Your task to perform on an android device: Search for pizza restaurants on Maps Image 0: 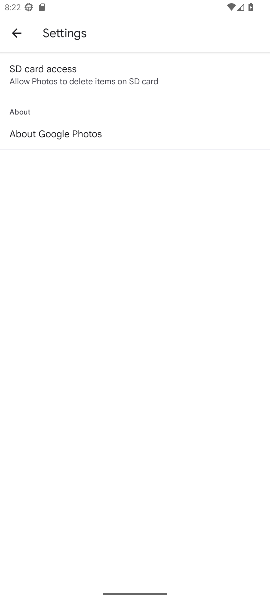
Step 0: press home button
Your task to perform on an android device: Search for pizza restaurants on Maps Image 1: 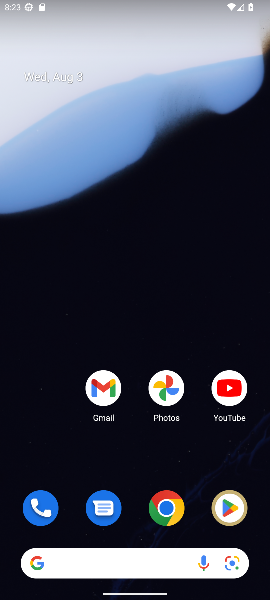
Step 1: drag from (141, 532) to (213, 443)
Your task to perform on an android device: Search for pizza restaurants on Maps Image 2: 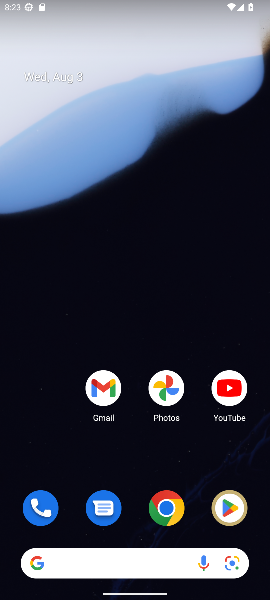
Step 2: drag from (146, 534) to (268, 236)
Your task to perform on an android device: Search for pizza restaurants on Maps Image 3: 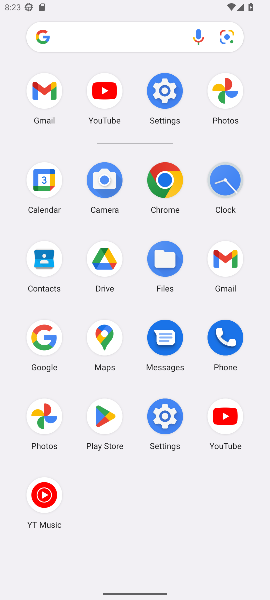
Step 3: drag from (95, 427) to (98, 292)
Your task to perform on an android device: Search for pizza restaurants on Maps Image 4: 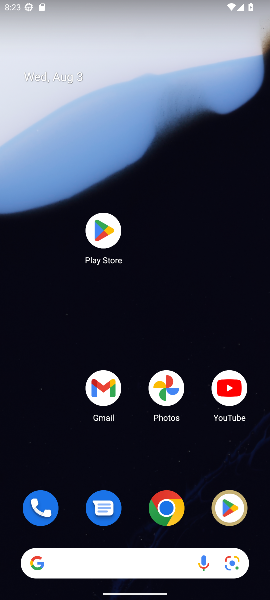
Step 4: drag from (138, 538) to (256, 23)
Your task to perform on an android device: Search for pizza restaurants on Maps Image 5: 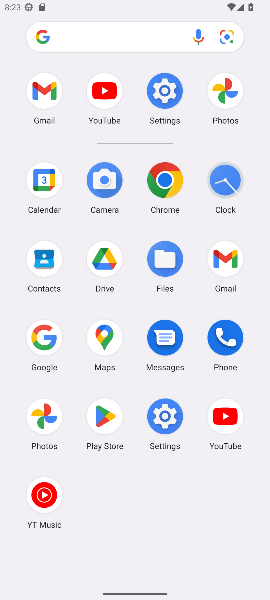
Step 5: click (103, 326)
Your task to perform on an android device: Search for pizza restaurants on Maps Image 6: 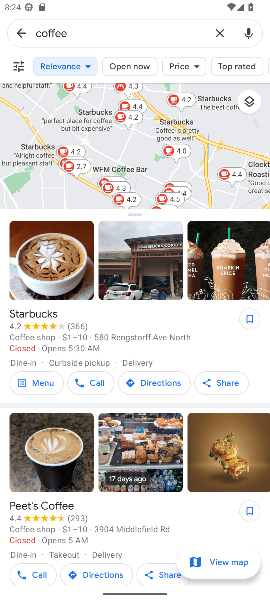
Step 6: click (19, 35)
Your task to perform on an android device: Search for pizza restaurants on Maps Image 7: 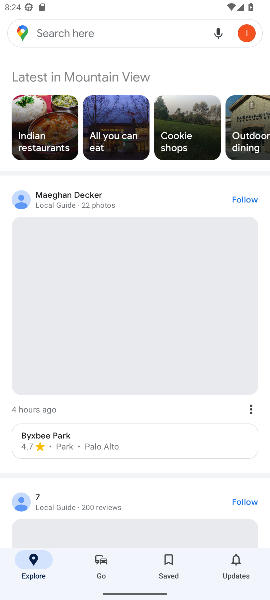
Step 7: click (84, 37)
Your task to perform on an android device: Search for pizza restaurants on Maps Image 8: 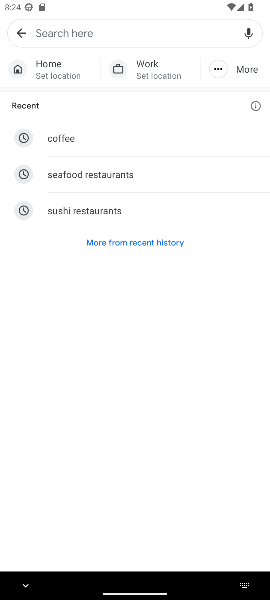
Step 8: type "pizza restaurants"
Your task to perform on an android device: Search for pizza restaurants on Maps Image 9: 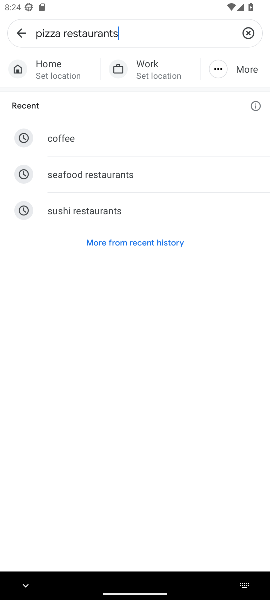
Step 9: type ""
Your task to perform on an android device: Search for pizza restaurants on Maps Image 10: 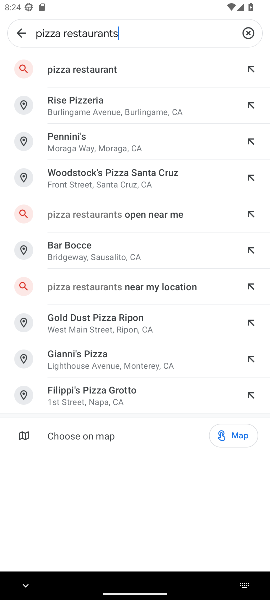
Step 10: click (127, 79)
Your task to perform on an android device: Search for pizza restaurants on Maps Image 11: 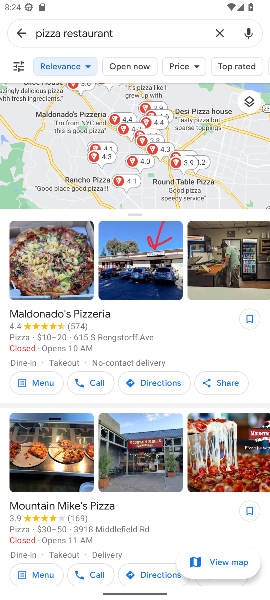
Step 11: task complete